Your task to perform on an android device: What's the weather going to be tomorrow? Image 0: 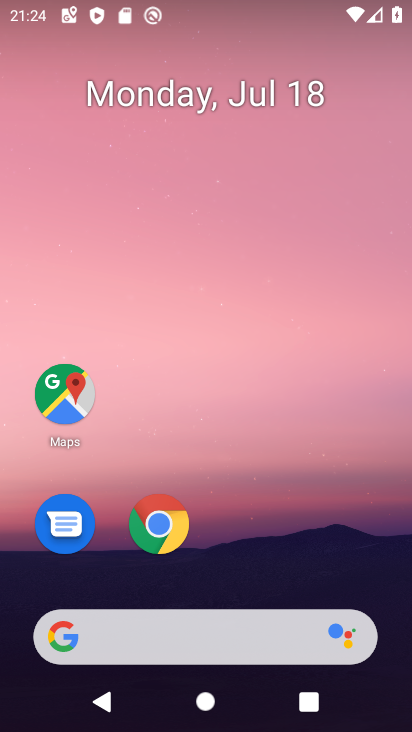
Step 0: drag from (269, 537) to (313, 29)
Your task to perform on an android device: What's the weather going to be tomorrow? Image 1: 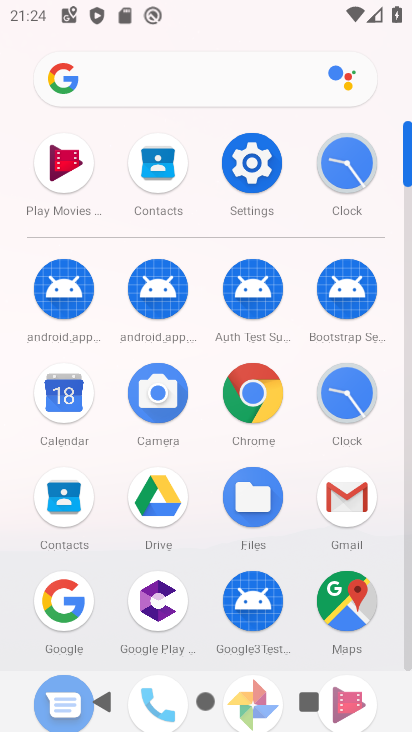
Step 1: click (211, 76)
Your task to perform on an android device: What's the weather going to be tomorrow? Image 2: 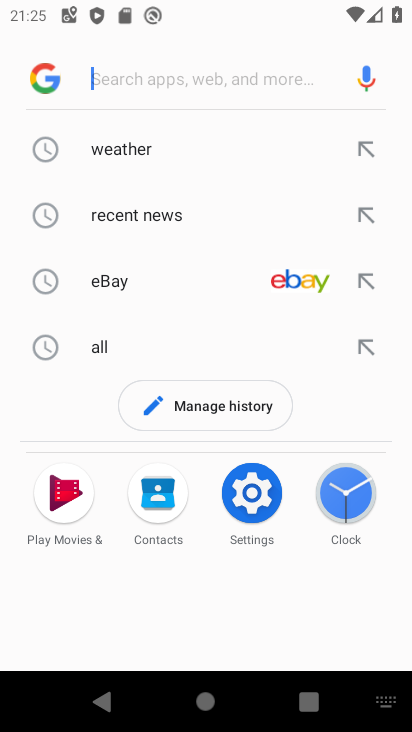
Step 2: click (147, 147)
Your task to perform on an android device: What's the weather going to be tomorrow? Image 3: 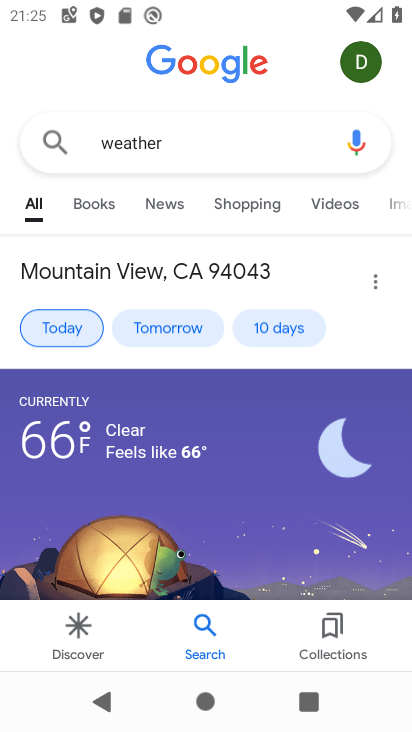
Step 3: click (86, 336)
Your task to perform on an android device: What's the weather going to be tomorrow? Image 4: 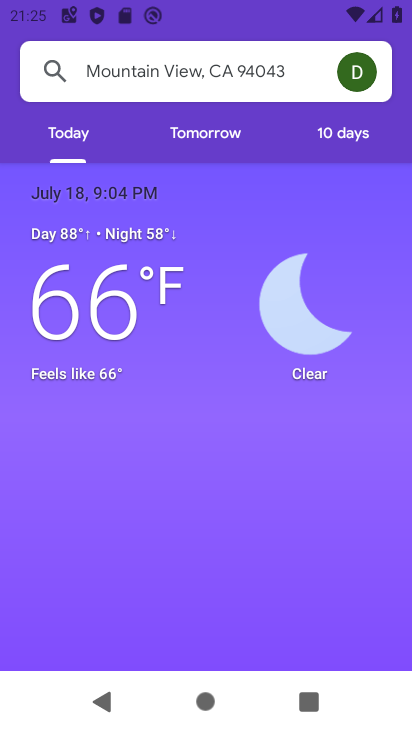
Step 4: click (229, 141)
Your task to perform on an android device: What's the weather going to be tomorrow? Image 5: 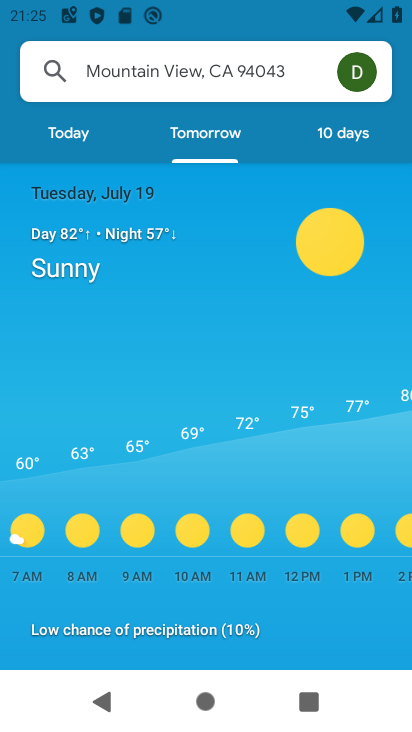
Step 5: task complete